Your task to perform on an android device: Open the calendar app, open the side menu, and click the "Day" option Image 0: 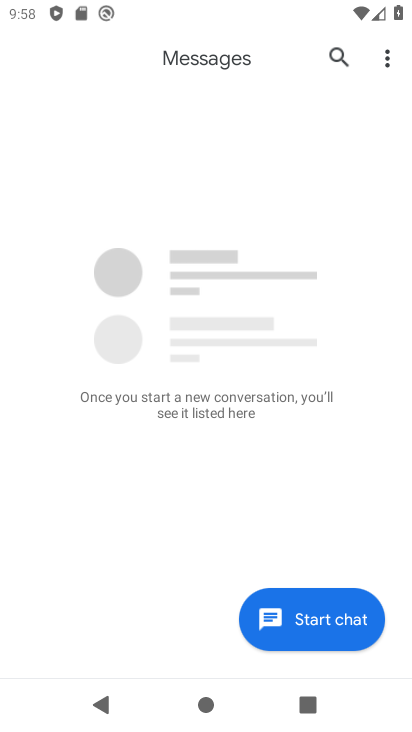
Step 0: press home button
Your task to perform on an android device: Open the calendar app, open the side menu, and click the "Day" option Image 1: 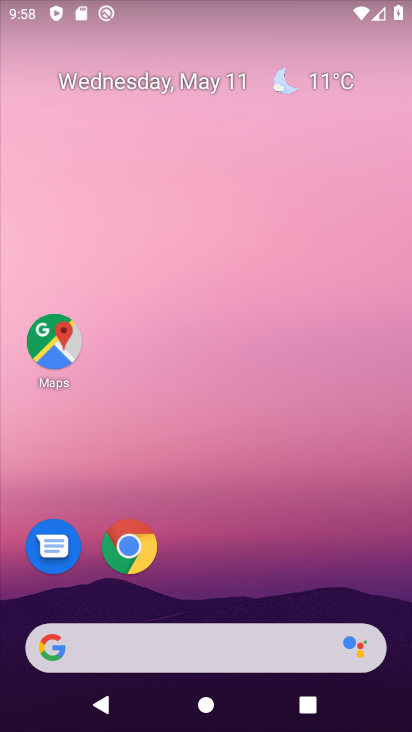
Step 1: drag from (326, 544) to (330, 92)
Your task to perform on an android device: Open the calendar app, open the side menu, and click the "Day" option Image 2: 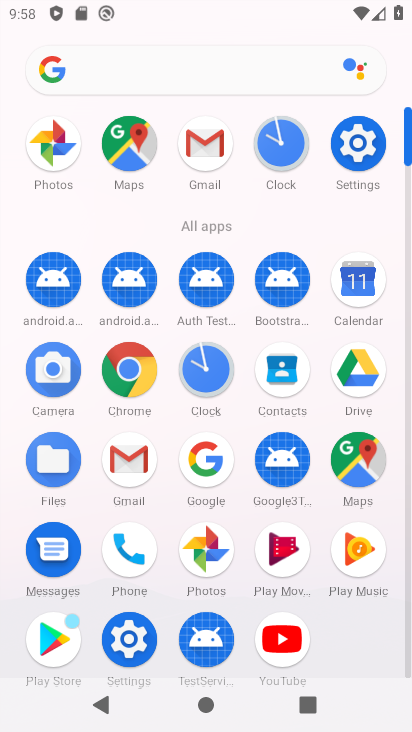
Step 2: click (362, 288)
Your task to perform on an android device: Open the calendar app, open the side menu, and click the "Day" option Image 3: 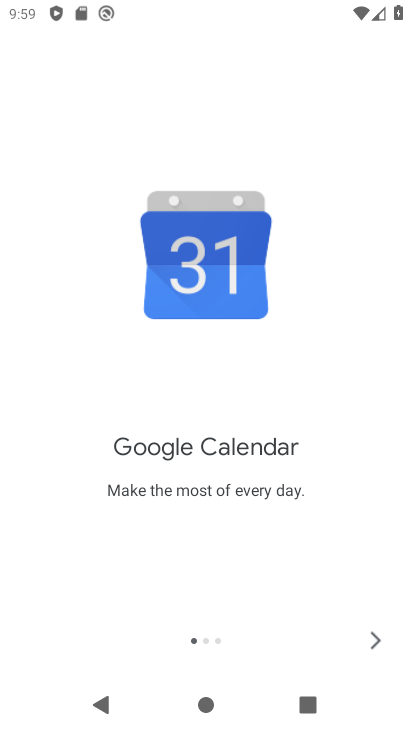
Step 3: click (377, 636)
Your task to perform on an android device: Open the calendar app, open the side menu, and click the "Day" option Image 4: 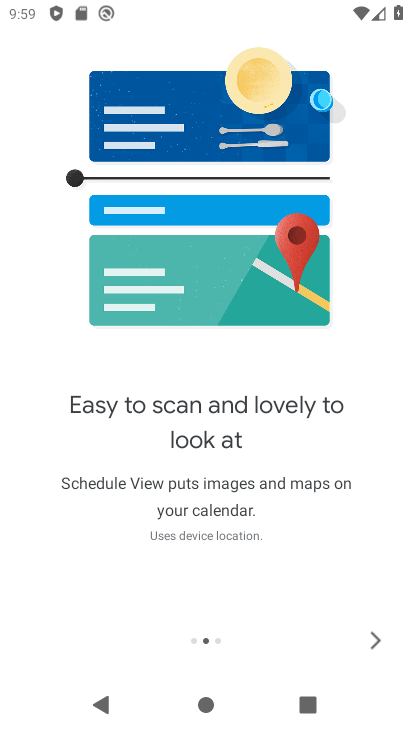
Step 4: click (377, 636)
Your task to perform on an android device: Open the calendar app, open the side menu, and click the "Day" option Image 5: 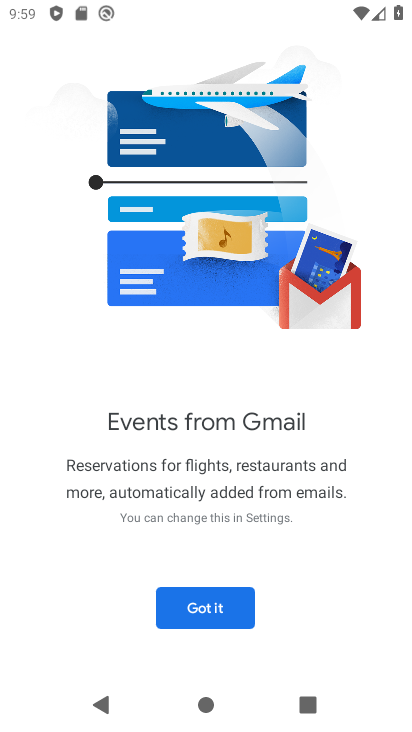
Step 5: click (189, 602)
Your task to perform on an android device: Open the calendar app, open the side menu, and click the "Day" option Image 6: 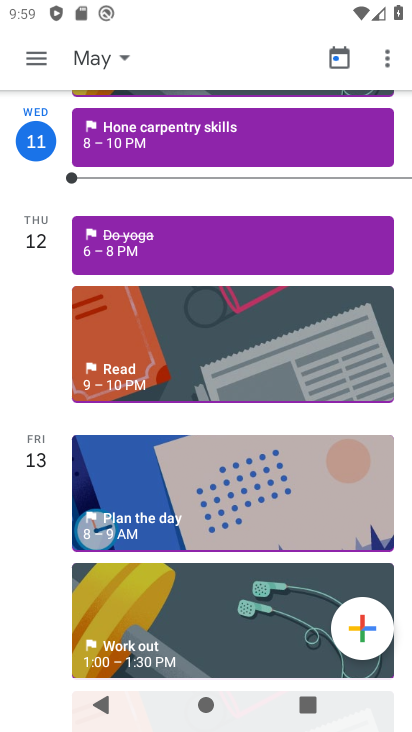
Step 6: click (32, 59)
Your task to perform on an android device: Open the calendar app, open the side menu, and click the "Day" option Image 7: 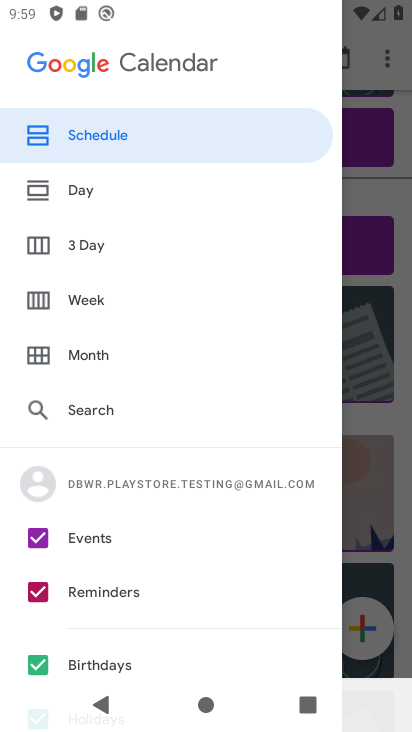
Step 7: click (94, 190)
Your task to perform on an android device: Open the calendar app, open the side menu, and click the "Day" option Image 8: 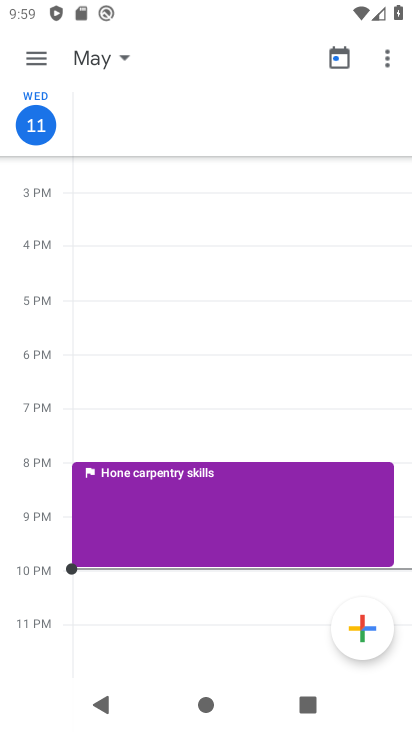
Step 8: task complete